Your task to perform on an android device: turn on notifications settings in the gmail app Image 0: 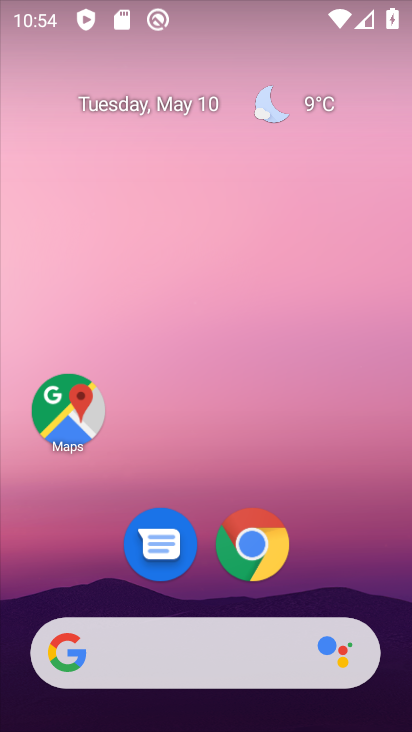
Step 0: drag from (180, 618) to (275, 168)
Your task to perform on an android device: turn on notifications settings in the gmail app Image 1: 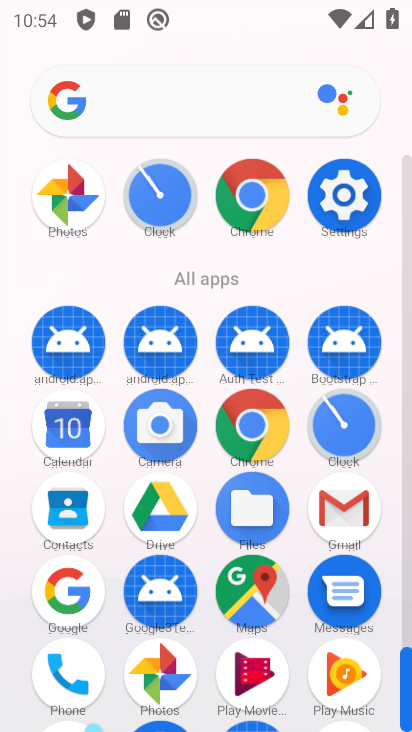
Step 1: click (376, 513)
Your task to perform on an android device: turn on notifications settings in the gmail app Image 2: 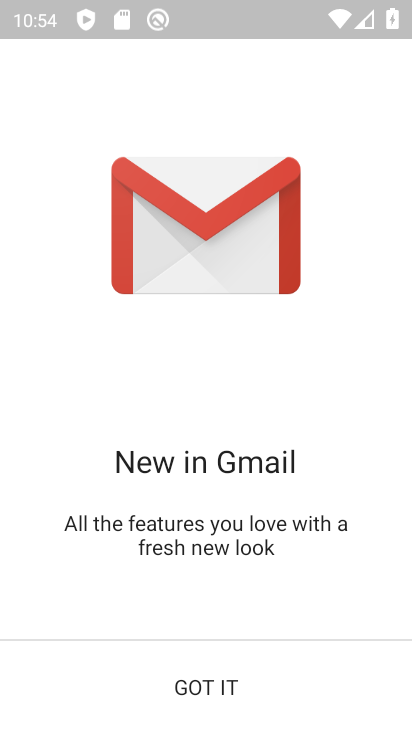
Step 2: click (293, 710)
Your task to perform on an android device: turn on notifications settings in the gmail app Image 3: 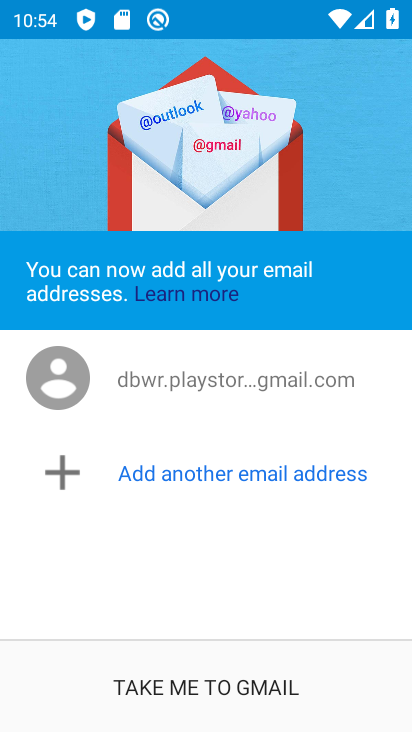
Step 3: click (229, 705)
Your task to perform on an android device: turn on notifications settings in the gmail app Image 4: 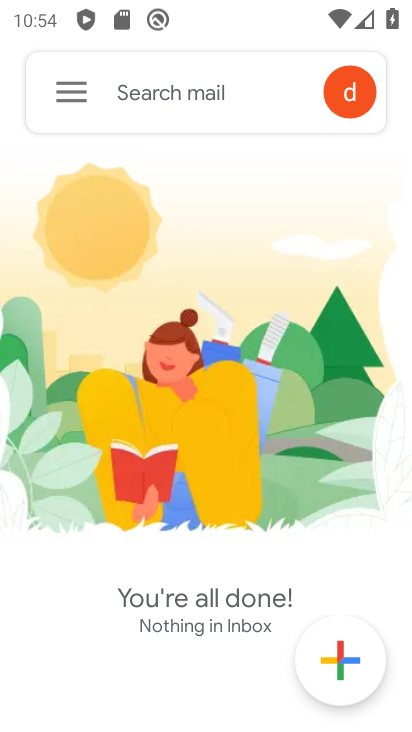
Step 4: click (65, 85)
Your task to perform on an android device: turn on notifications settings in the gmail app Image 5: 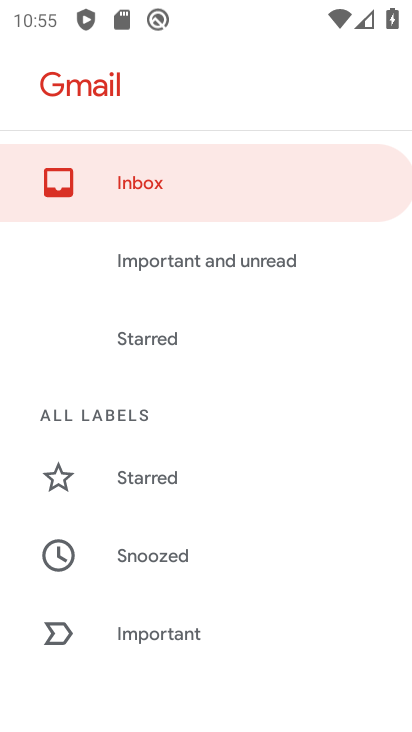
Step 5: drag from (173, 664) to (288, 279)
Your task to perform on an android device: turn on notifications settings in the gmail app Image 6: 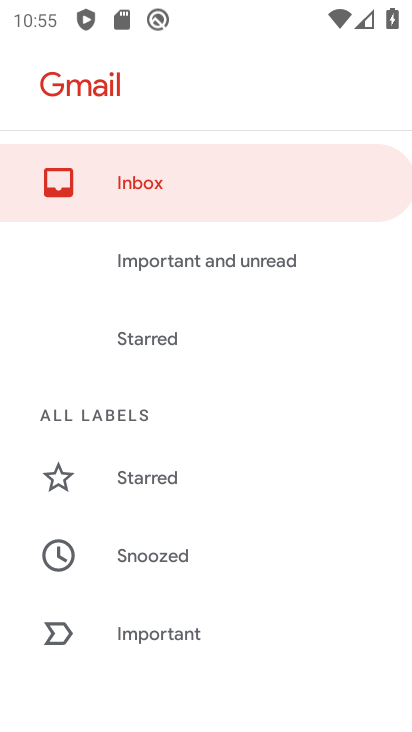
Step 6: drag from (227, 666) to (319, 322)
Your task to perform on an android device: turn on notifications settings in the gmail app Image 7: 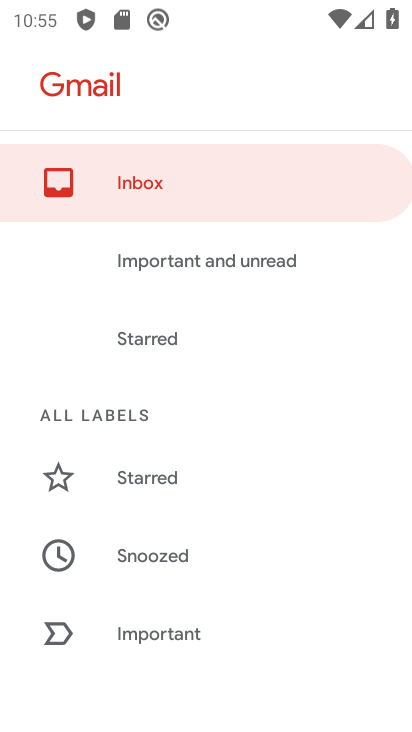
Step 7: drag from (174, 634) to (288, 112)
Your task to perform on an android device: turn on notifications settings in the gmail app Image 8: 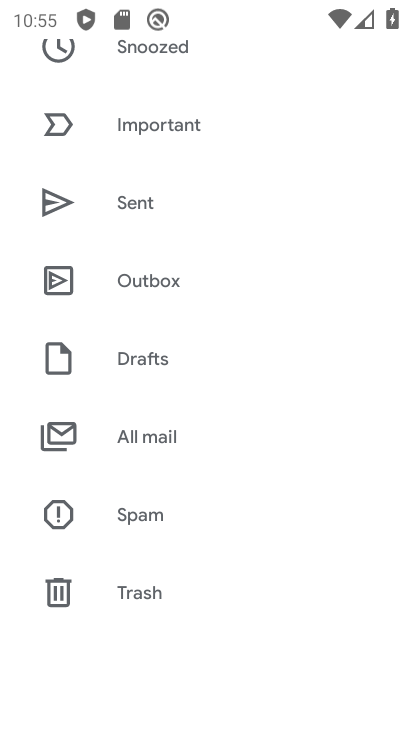
Step 8: drag from (120, 616) to (182, 212)
Your task to perform on an android device: turn on notifications settings in the gmail app Image 9: 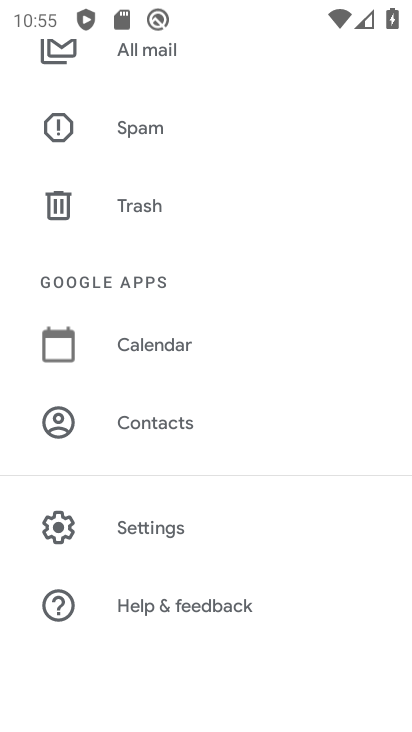
Step 9: click (180, 544)
Your task to perform on an android device: turn on notifications settings in the gmail app Image 10: 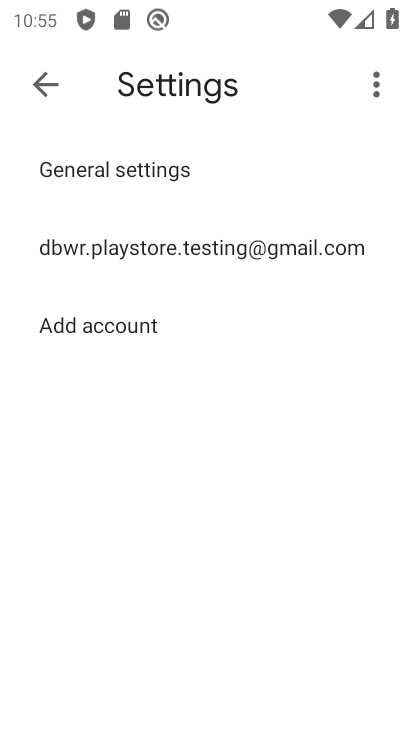
Step 10: click (204, 260)
Your task to perform on an android device: turn on notifications settings in the gmail app Image 11: 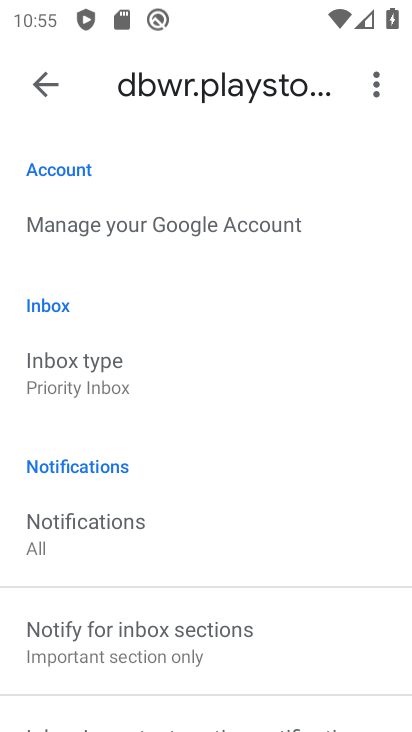
Step 11: drag from (149, 671) to (241, 253)
Your task to perform on an android device: turn on notifications settings in the gmail app Image 12: 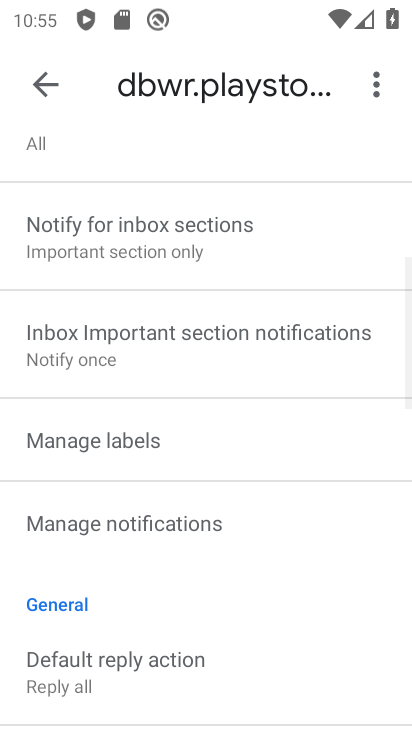
Step 12: click (221, 528)
Your task to perform on an android device: turn on notifications settings in the gmail app Image 13: 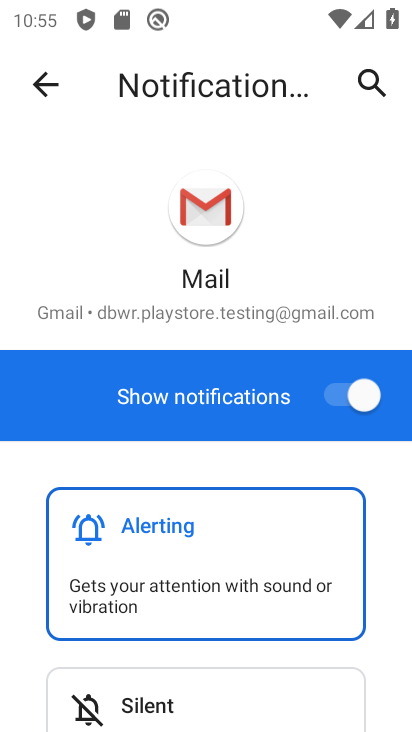
Step 13: task complete